Your task to perform on an android device: Open display settings Image 0: 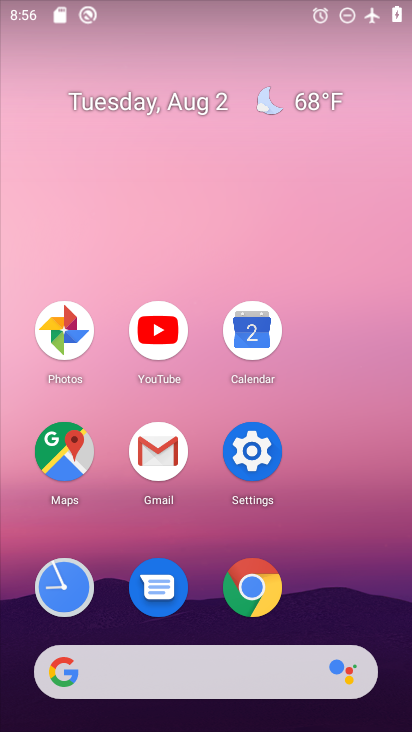
Step 0: click (252, 453)
Your task to perform on an android device: Open display settings Image 1: 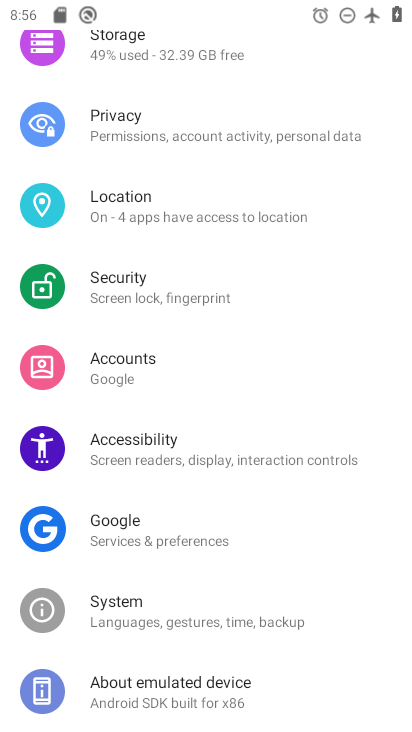
Step 1: drag from (273, 256) to (275, 599)
Your task to perform on an android device: Open display settings Image 2: 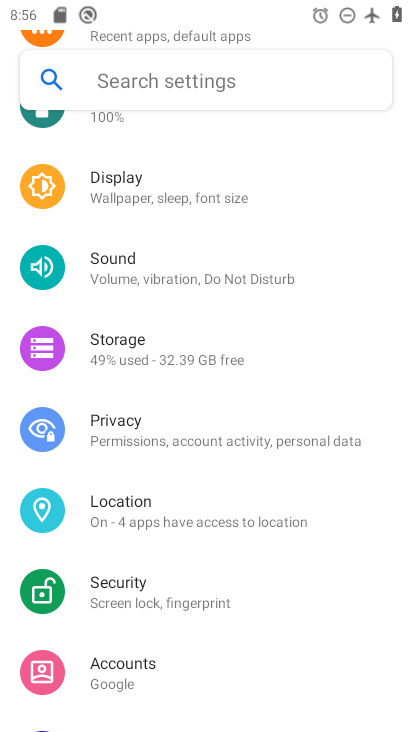
Step 2: click (111, 180)
Your task to perform on an android device: Open display settings Image 3: 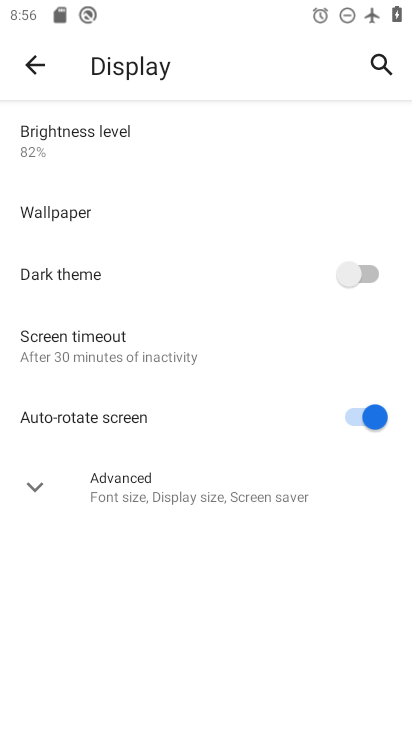
Step 3: task complete